Your task to perform on an android device: How much does a 2 bedroom apartment rent for in Seattle? Image 0: 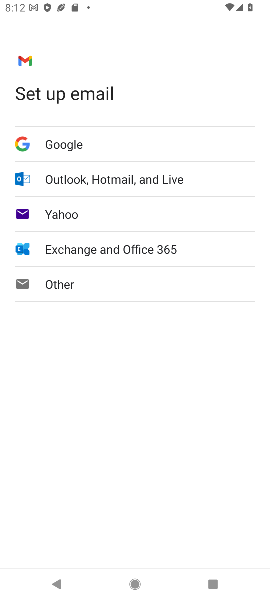
Step 0: press home button
Your task to perform on an android device: How much does a 2 bedroom apartment rent for in Seattle? Image 1: 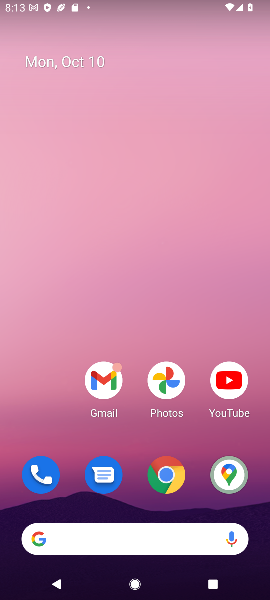
Step 1: click (174, 473)
Your task to perform on an android device: How much does a 2 bedroom apartment rent for in Seattle? Image 2: 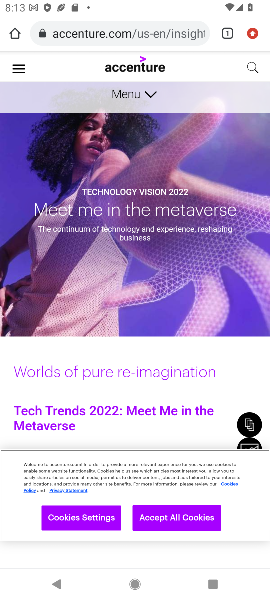
Step 2: click (80, 31)
Your task to perform on an android device: How much does a 2 bedroom apartment rent for in Seattle? Image 3: 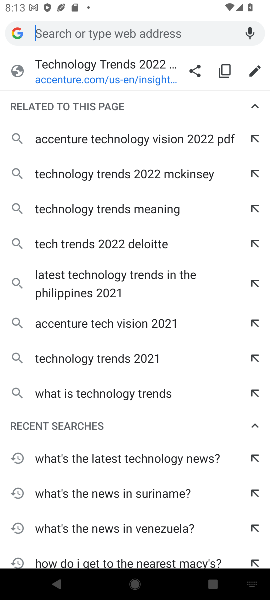
Step 3: drag from (196, 595) to (268, 596)
Your task to perform on an android device: How much does a 2 bedroom apartment rent for in Seattle? Image 4: 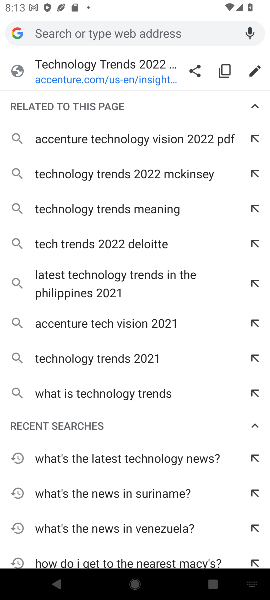
Step 4: type "How much does a 2 bedroom apartment rent for in Seattle?"
Your task to perform on an android device: How much does a 2 bedroom apartment rent for in Seattle? Image 5: 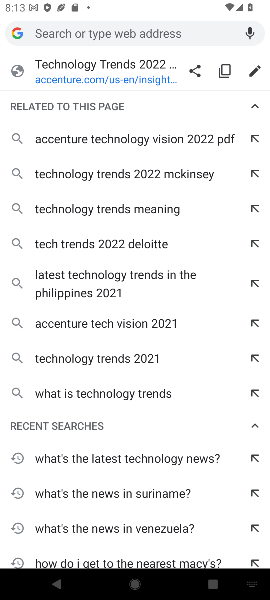
Step 5: click (191, 34)
Your task to perform on an android device: How much does a 2 bedroom apartment rent for in Seattle? Image 6: 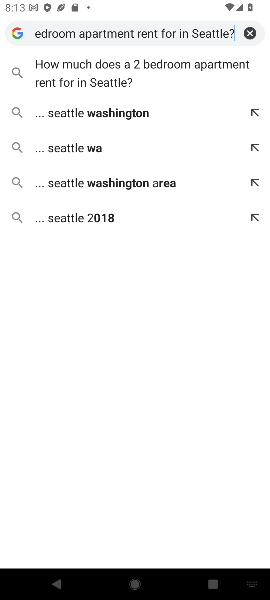
Step 6: click (185, 29)
Your task to perform on an android device: How much does a 2 bedroom apartment rent for in Seattle? Image 7: 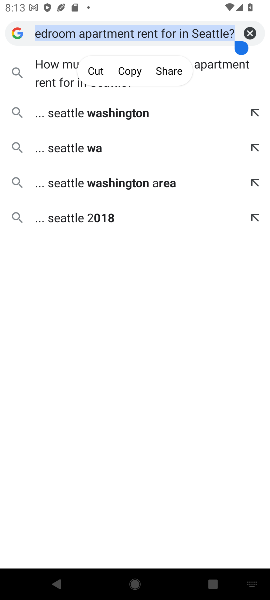
Step 7: click (175, 66)
Your task to perform on an android device: How much does a 2 bedroom apartment rent for in Seattle? Image 8: 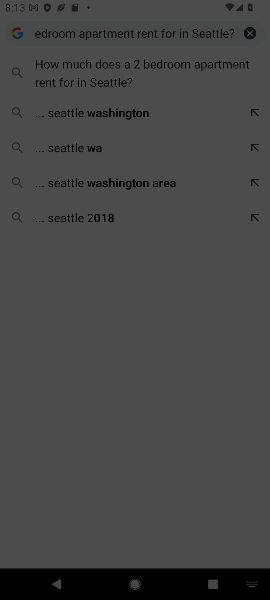
Step 8: click (172, 68)
Your task to perform on an android device: How much does a 2 bedroom apartment rent for in Seattle? Image 9: 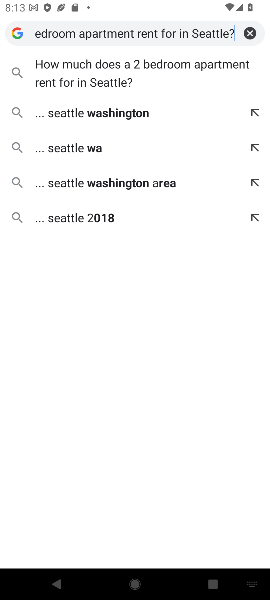
Step 9: click (172, 68)
Your task to perform on an android device: How much does a 2 bedroom apartment rent for in Seattle? Image 10: 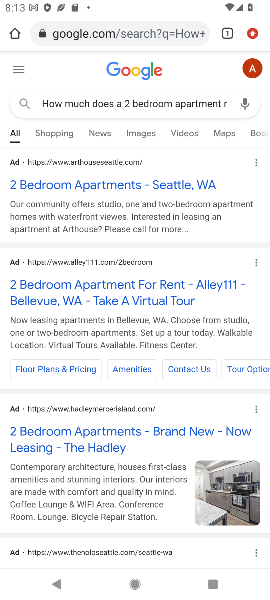
Step 10: click (113, 292)
Your task to perform on an android device: How much does a 2 bedroom apartment rent for in Seattle? Image 11: 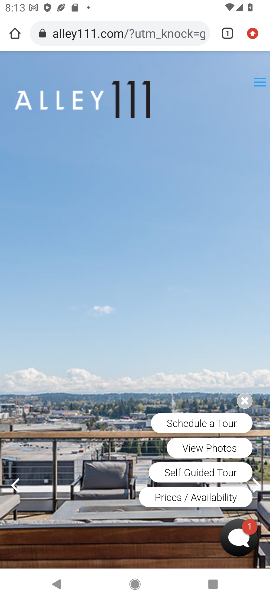
Step 11: task complete